Your task to perform on an android device: Go to location settings Image 0: 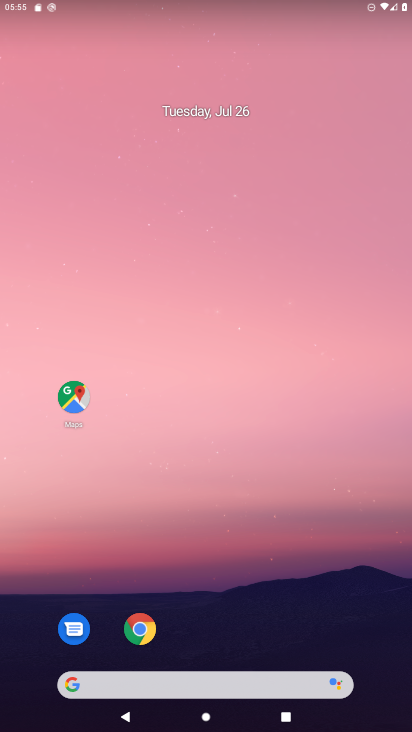
Step 0: drag from (178, 544) to (187, 222)
Your task to perform on an android device: Go to location settings Image 1: 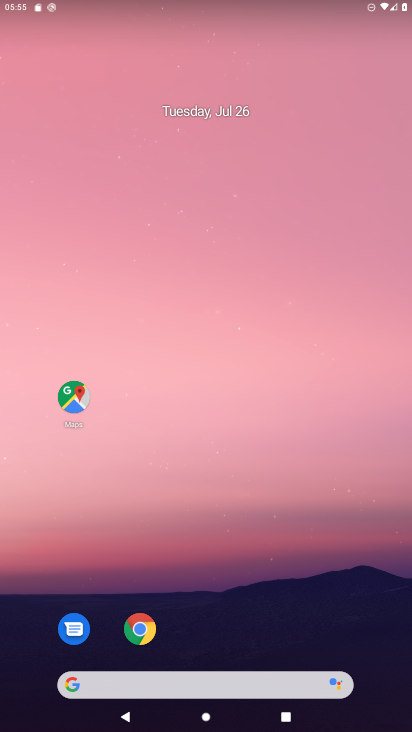
Step 1: drag from (204, 626) to (205, 195)
Your task to perform on an android device: Go to location settings Image 2: 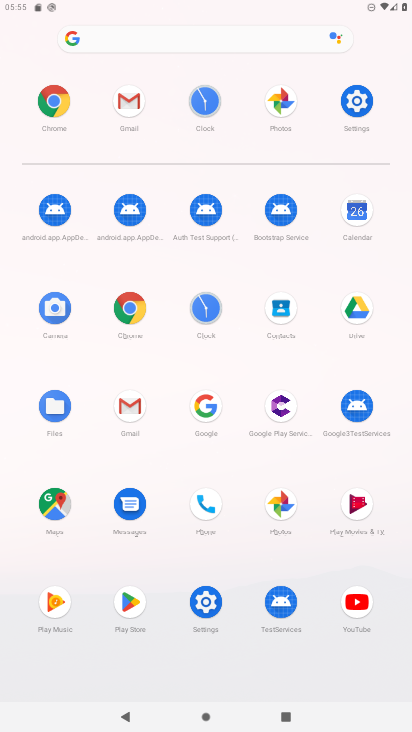
Step 2: click (356, 107)
Your task to perform on an android device: Go to location settings Image 3: 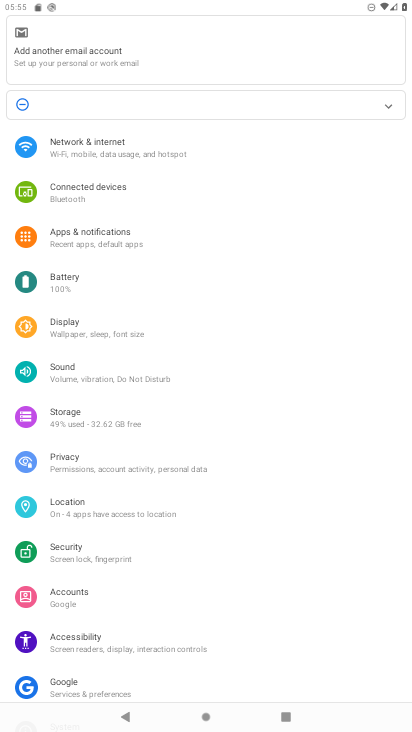
Step 3: click (62, 517)
Your task to perform on an android device: Go to location settings Image 4: 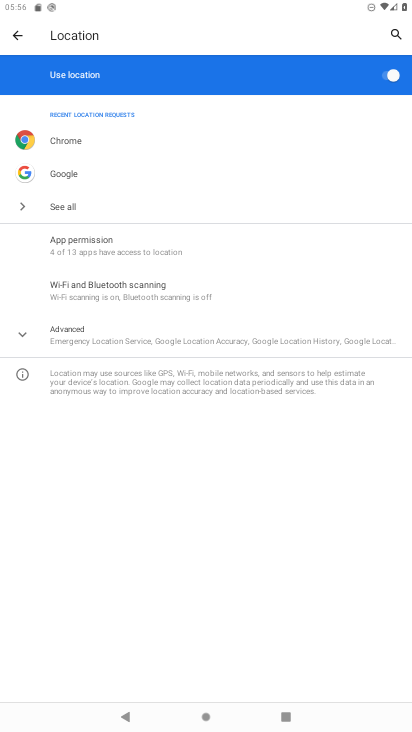
Step 4: task complete